Your task to perform on an android device: open the mobile data screen to see how much data has been used Image 0: 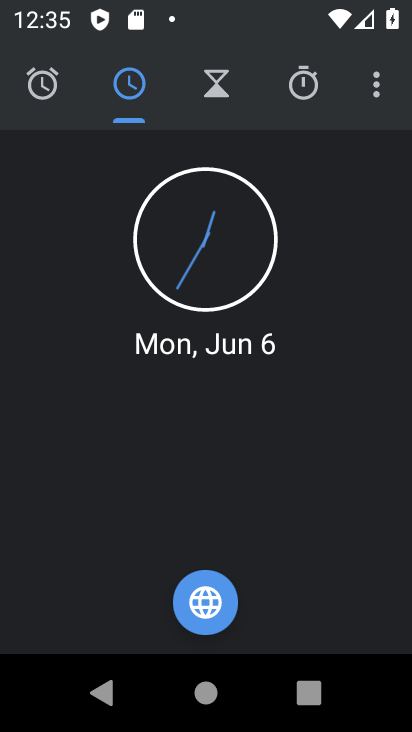
Step 0: press back button
Your task to perform on an android device: open the mobile data screen to see how much data has been used Image 1: 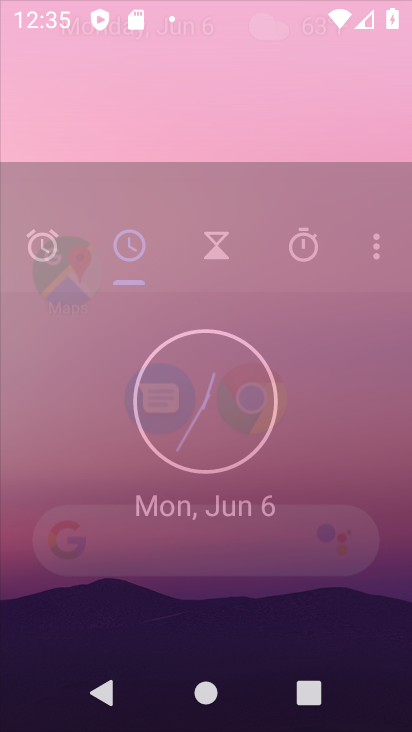
Step 1: press home button
Your task to perform on an android device: open the mobile data screen to see how much data has been used Image 2: 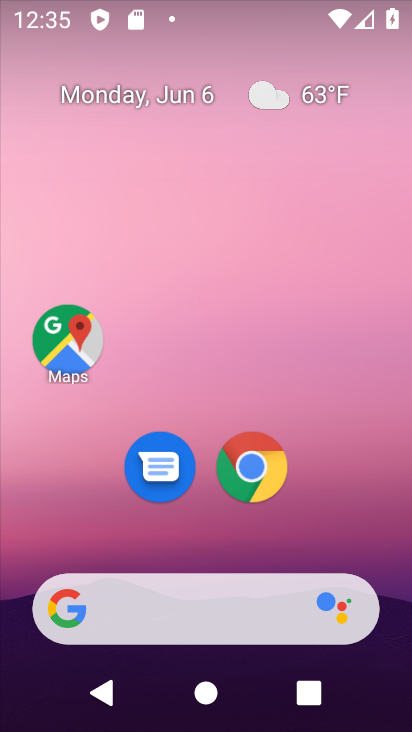
Step 2: drag from (387, 614) to (246, 83)
Your task to perform on an android device: open the mobile data screen to see how much data has been used Image 3: 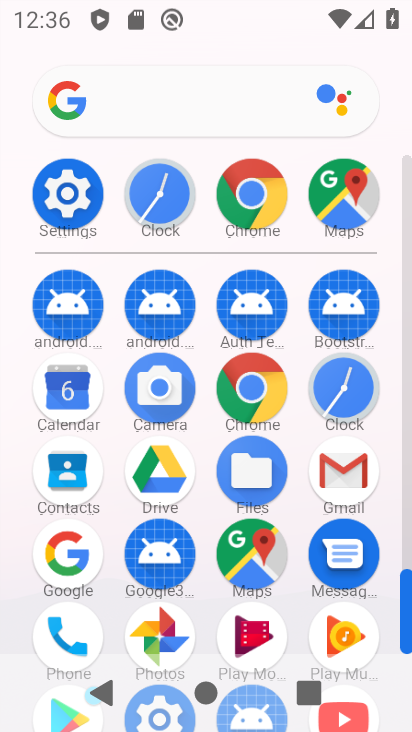
Step 3: click (42, 185)
Your task to perform on an android device: open the mobile data screen to see how much data has been used Image 4: 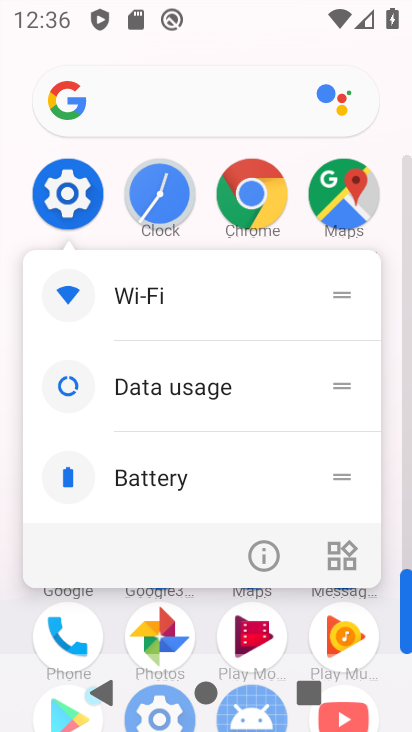
Step 4: click (42, 185)
Your task to perform on an android device: open the mobile data screen to see how much data has been used Image 5: 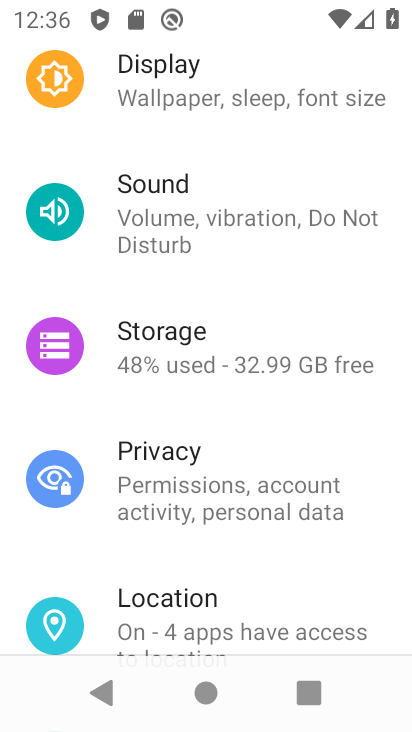
Step 5: drag from (155, 116) to (151, 560)
Your task to perform on an android device: open the mobile data screen to see how much data has been used Image 6: 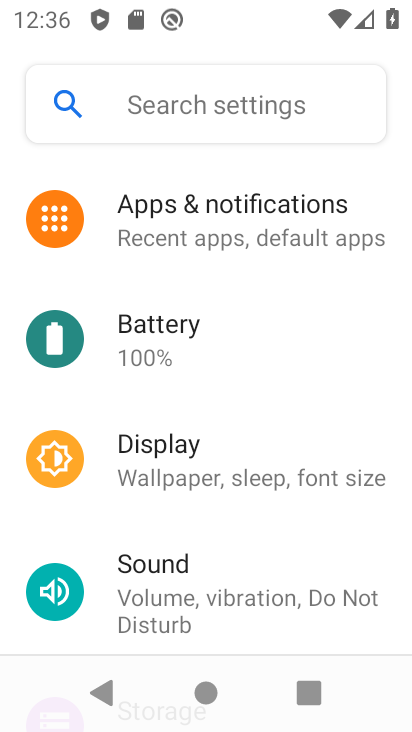
Step 6: drag from (118, 206) to (123, 587)
Your task to perform on an android device: open the mobile data screen to see how much data has been used Image 7: 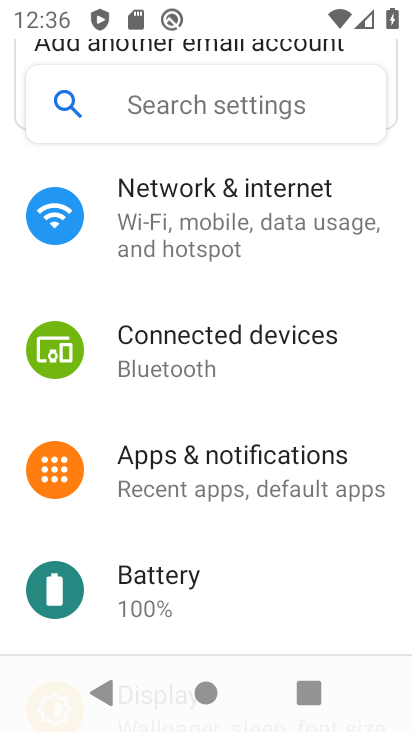
Step 7: click (140, 238)
Your task to perform on an android device: open the mobile data screen to see how much data has been used Image 8: 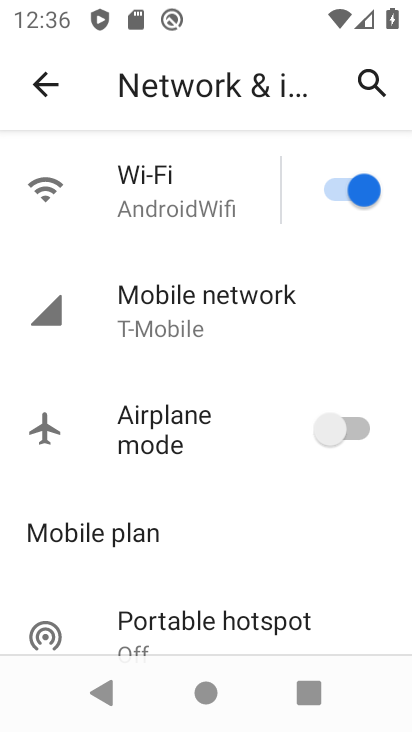
Step 8: click (150, 322)
Your task to perform on an android device: open the mobile data screen to see how much data has been used Image 9: 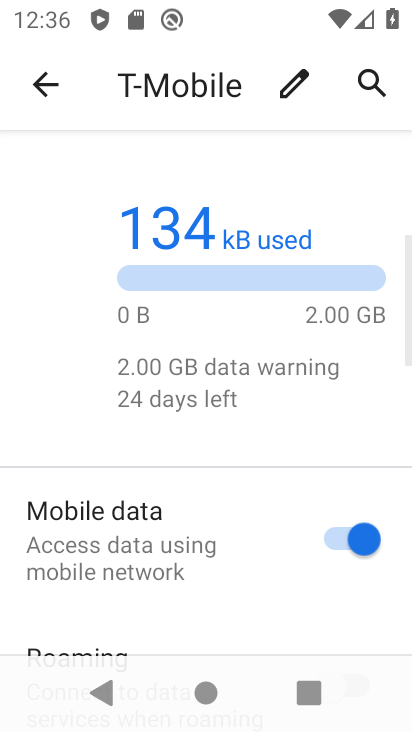
Step 9: drag from (162, 569) to (116, 48)
Your task to perform on an android device: open the mobile data screen to see how much data has been used Image 10: 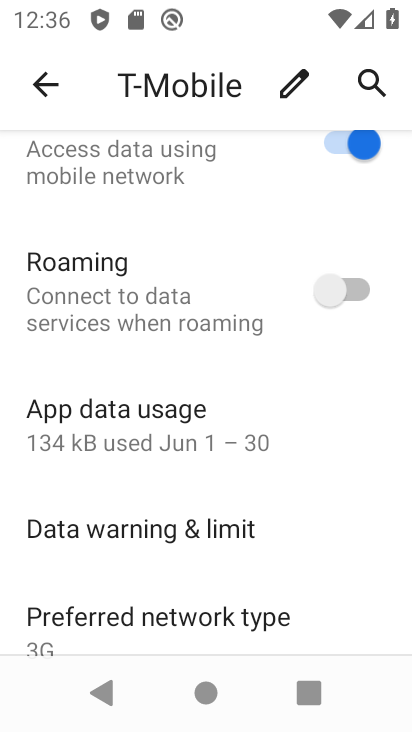
Step 10: click (119, 427)
Your task to perform on an android device: open the mobile data screen to see how much data has been used Image 11: 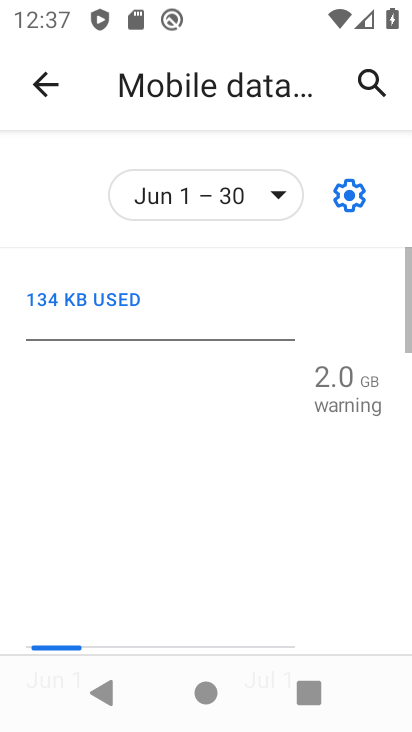
Step 11: task complete